Your task to perform on an android device: turn off smart reply in the gmail app Image 0: 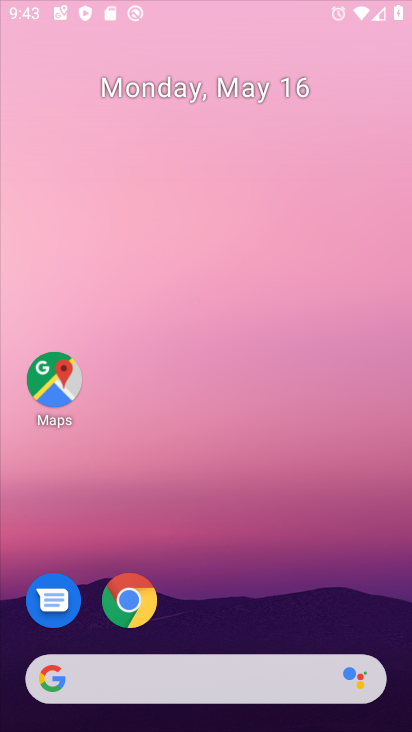
Step 0: drag from (197, 641) to (233, 111)
Your task to perform on an android device: turn off smart reply in the gmail app Image 1: 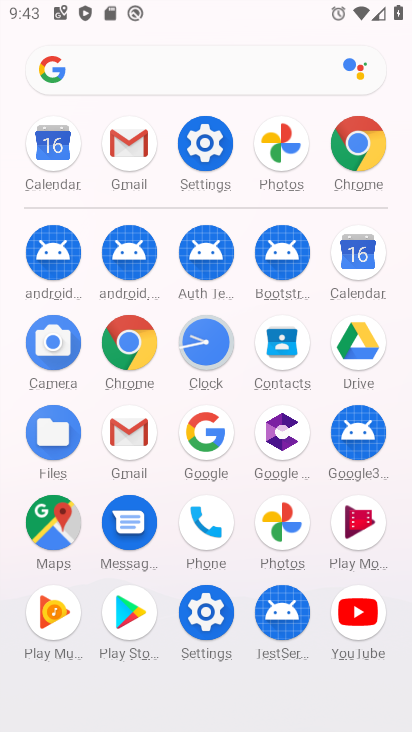
Step 1: click (122, 433)
Your task to perform on an android device: turn off smart reply in the gmail app Image 2: 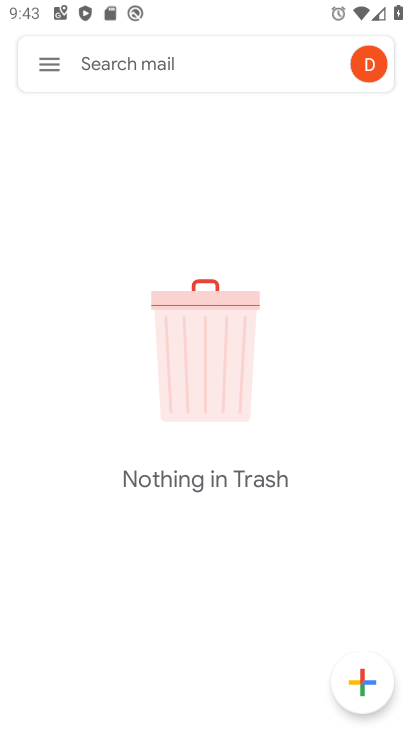
Step 2: click (48, 66)
Your task to perform on an android device: turn off smart reply in the gmail app Image 3: 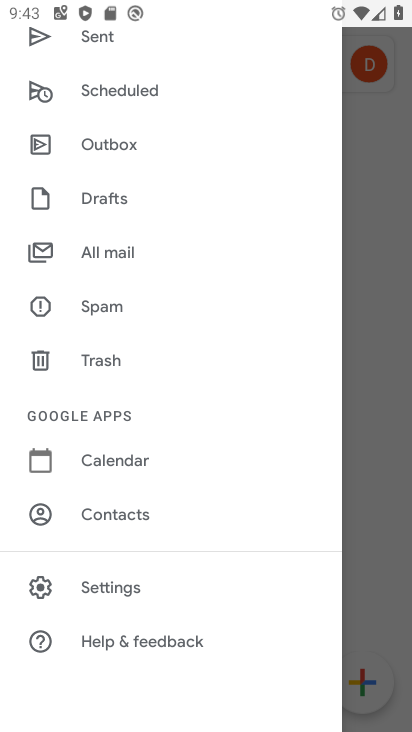
Step 3: click (133, 583)
Your task to perform on an android device: turn off smart reply in the gmail app Image 4: 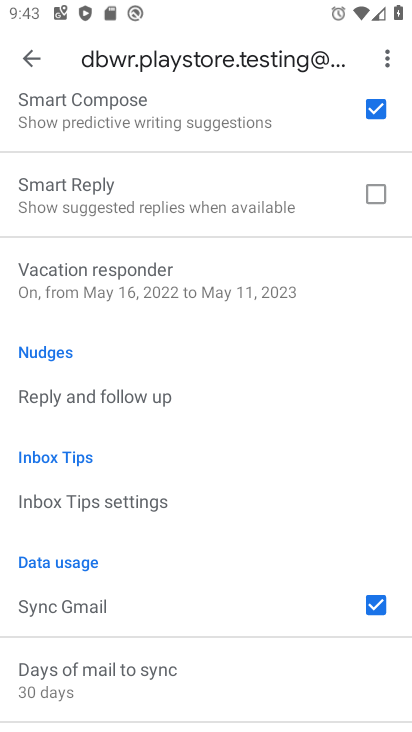
Step 4: task complete